Your task to perform on an android device: delete browsing data in the chrome app Image 0: 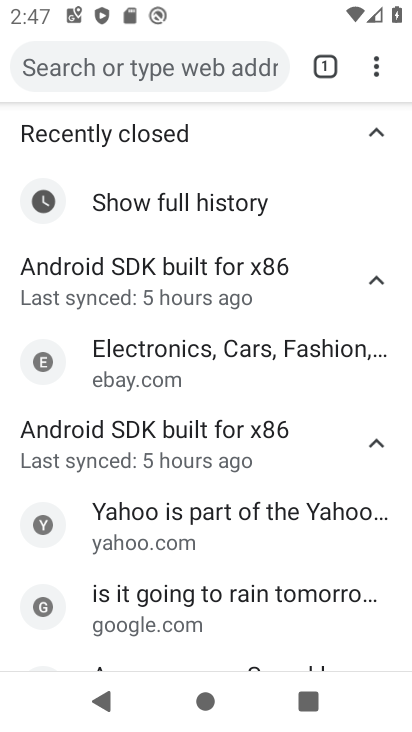
Step 0: drag from (378, 69) to (210, 551)
Your task to perform on an android device: delete browsing data in the chrome app Image 1: 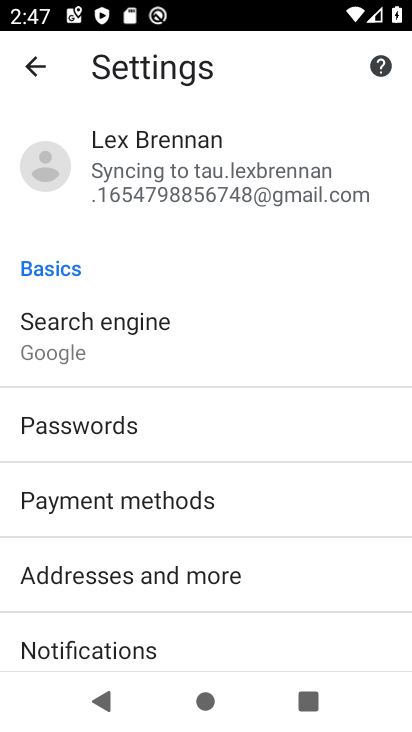
Step 1: drag from (272, 630) to (311, 144)
Your task to perform on an android device: delete browsing data in the chrome app Image 2: 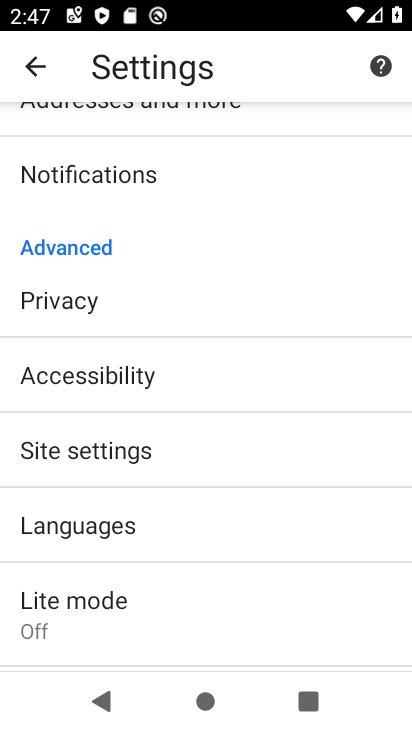
Step 2: click (93, 313)
Your task to perform on an android device: delete browsing data in the chrome app Image 3: 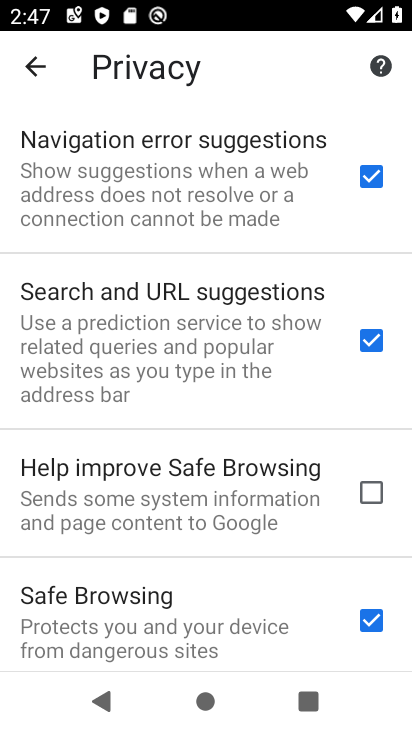
Step 3: drag from (255, 602) to (296, 152)
Your task to perform on an android device: delete browsing data in the chrome app Image 4: 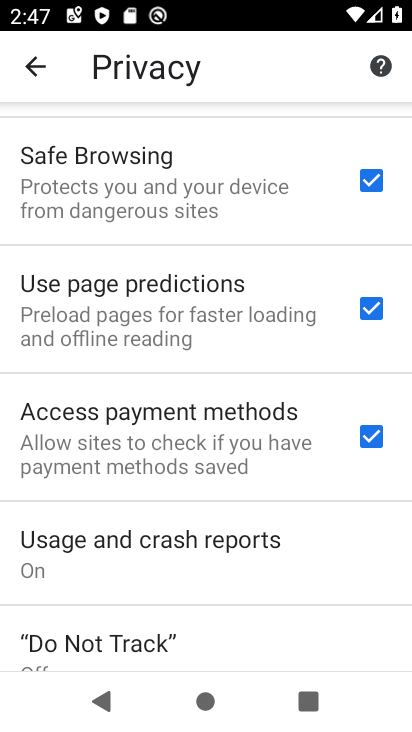
Step 4: drag from (241, 597) to (305, 92)
Your task to perform on an android device: delete browsing data in the chrome app Image 5: 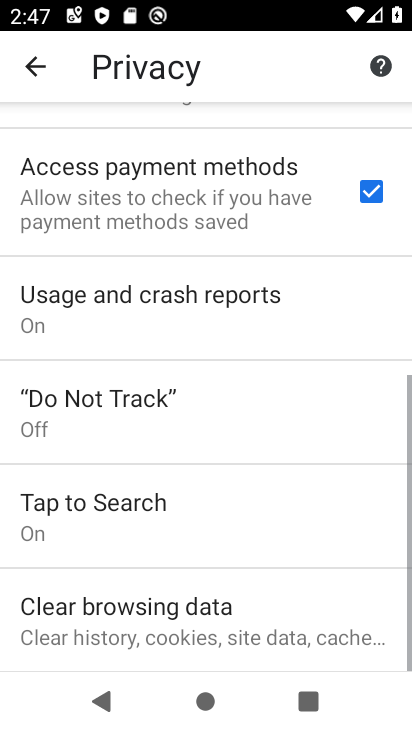
Step 5: click (194, 610)
Your task to perform on an android device: delete browsing data in the chrome app Image 6: 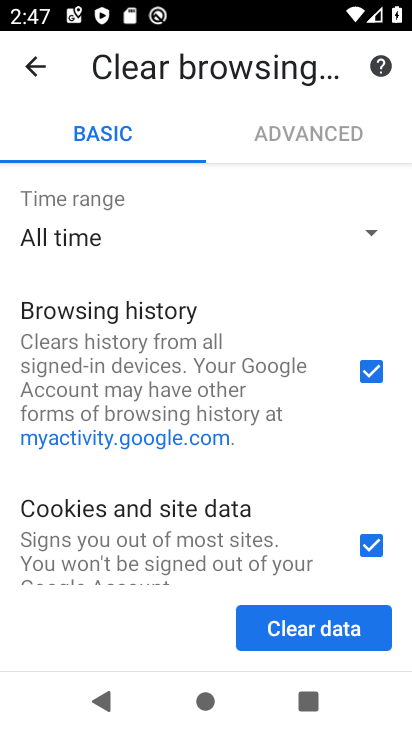
Step 6: drag from (215, 547) to (284, 201)
Your task to perform on an android device: delete browsing data in the chrome app Image 7: 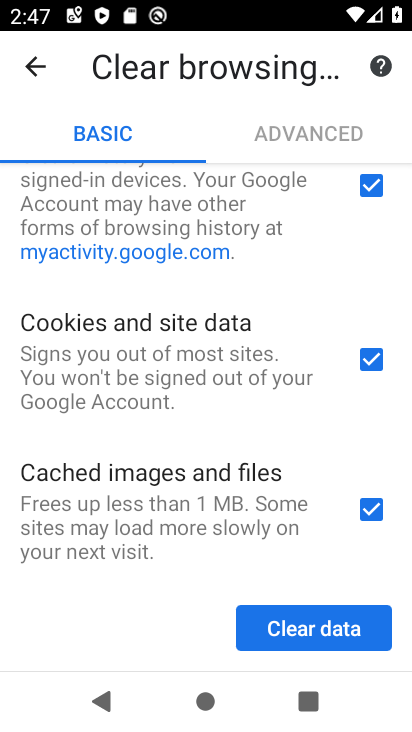
Step 7: click (317, 632)
Your task to perform on an android device: delete browsing data in the chrome app Image 8: 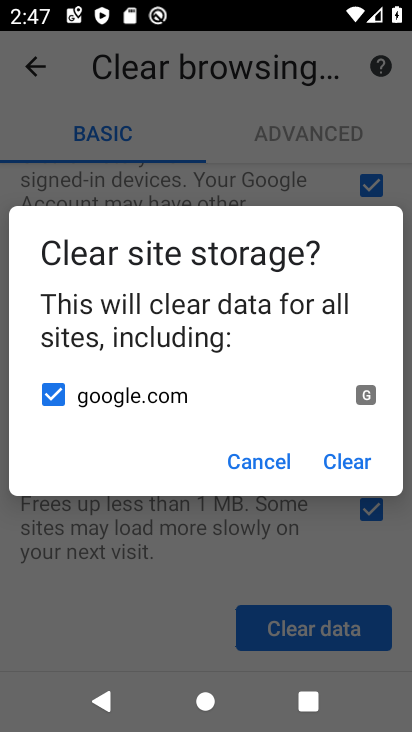
Step 8: click (351, 470)
Your task to perform on an android device: delete browsing data in the chrome app Image 9: 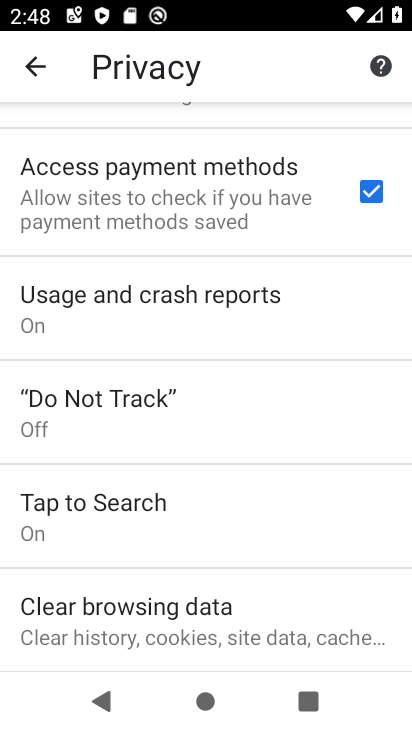
Step 9: task complete